Your task to perform on an android device: Open the map Image 0: 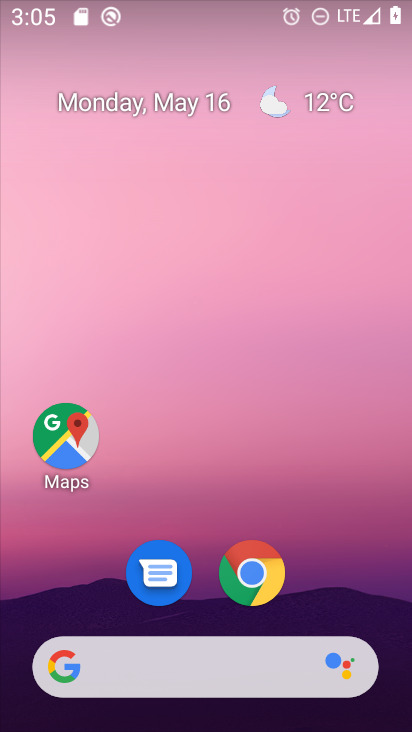
Step 0: click (85, 424)
Your task to perform on an android device: Open the map Image 1: 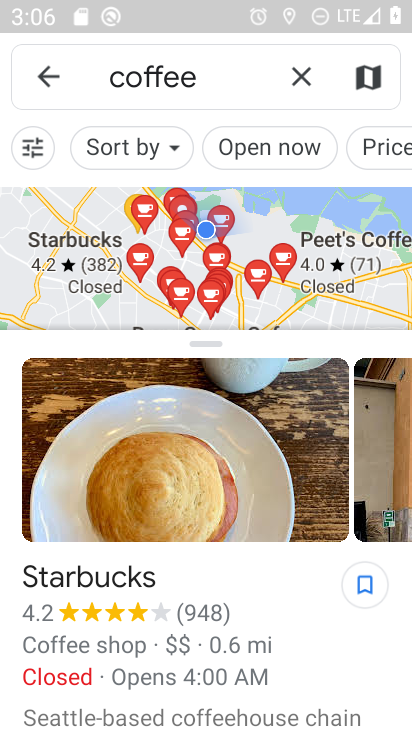
Step 1: click (294, 68)
Your task to perform on an android device: Open the map Image 2: 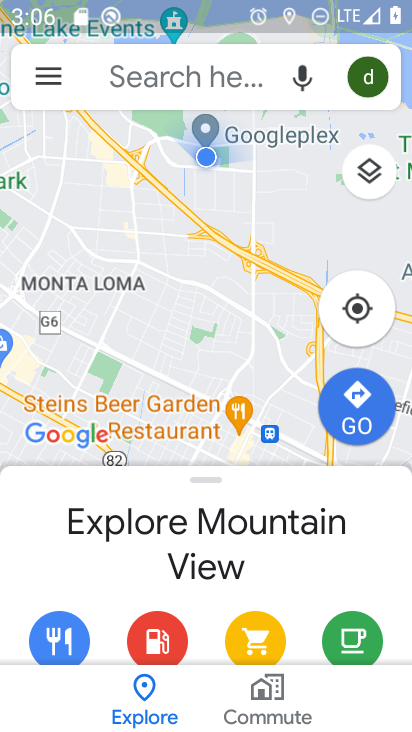
Step 2: task complete